Your task to perform on an android device: Open Maps and search for coffee Image 0: 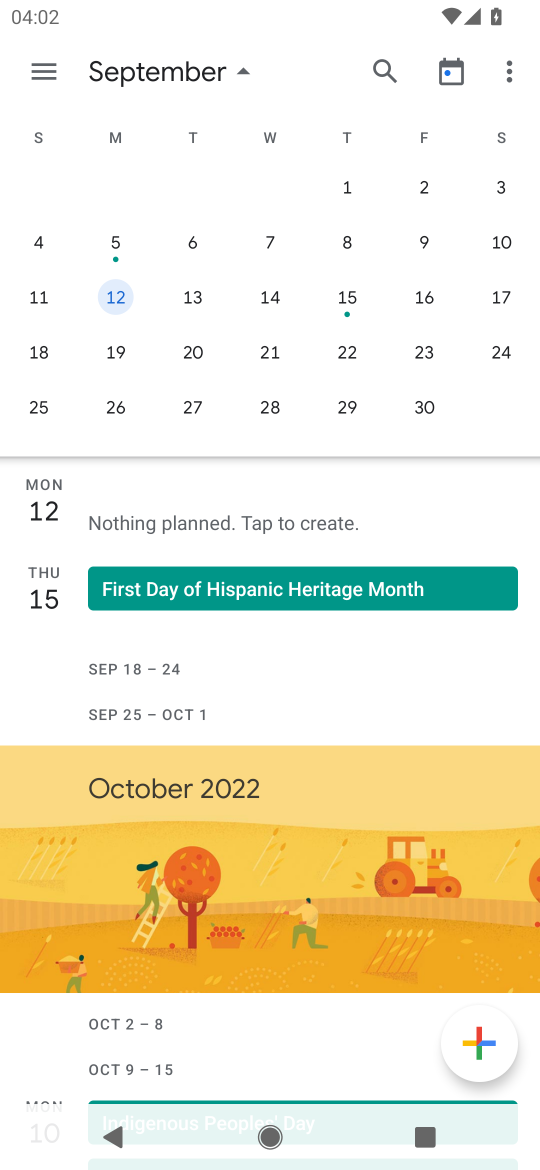
Step 0: press home button
Your task to perform on an android device: Open Maps and search for coffee Image 1: 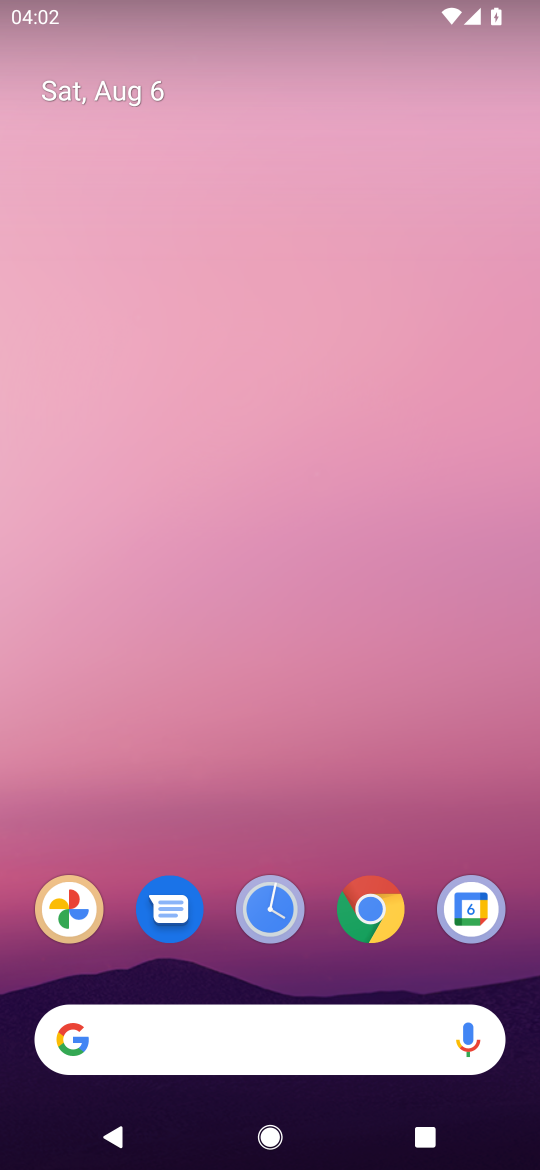
Step 1: drag from (262, 730) to (318, 62)
Your task to perform on an android device: Open Maps and search for coffee Image 2: 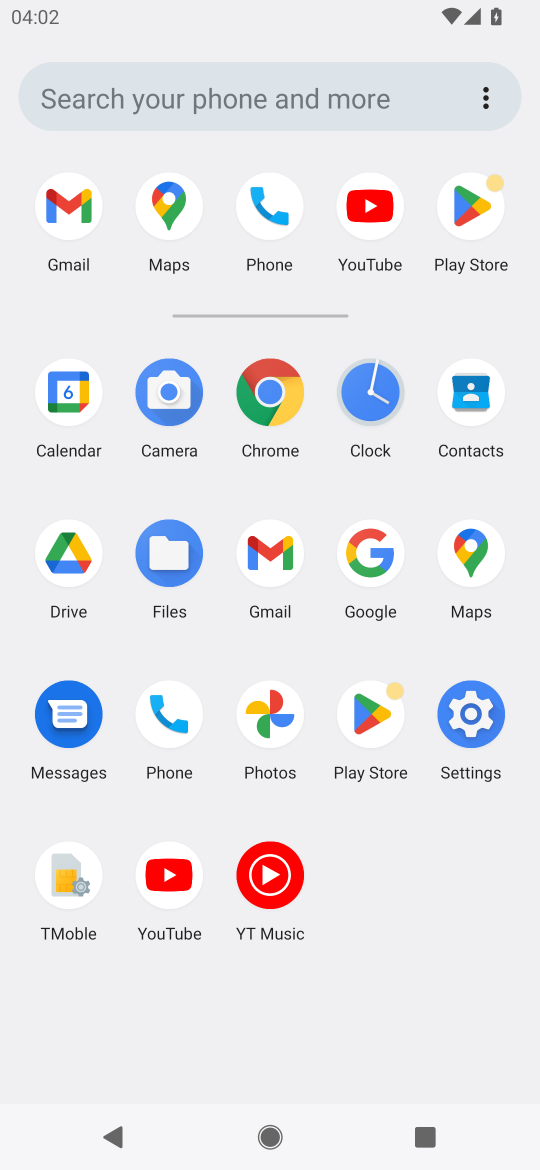
Step 2: click (472, 574)
Your task to perform on an android device: Open Maps and search for coffee Image 3: 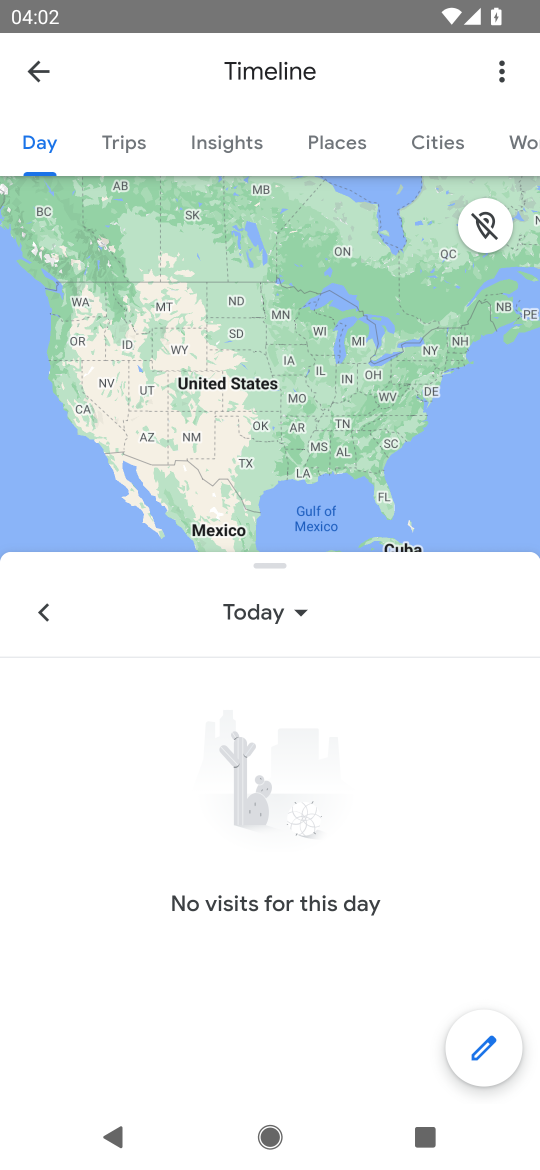
Step 3: click (35, 45)
Your task to perform on an android device: Open Maps and search for coffee Image 4: 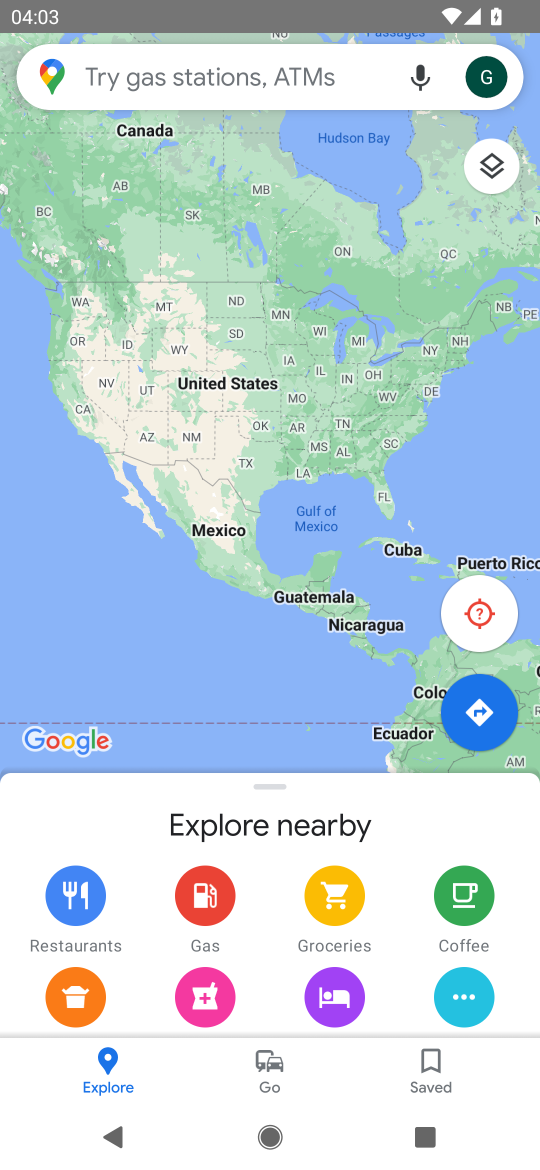
Step 4: click (225, 75)
Your task to perform on an android device: Open Maps and search for coffee Image 5: 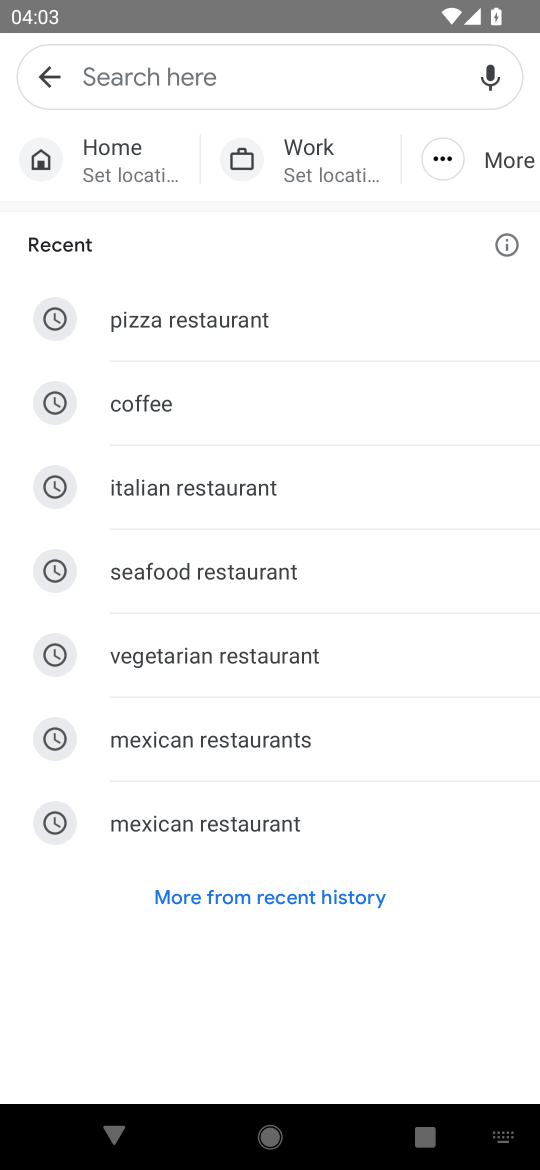
Step 5: type "coffee "
Your task to perform on an android device: Open Maps and search for coffee Image 6: 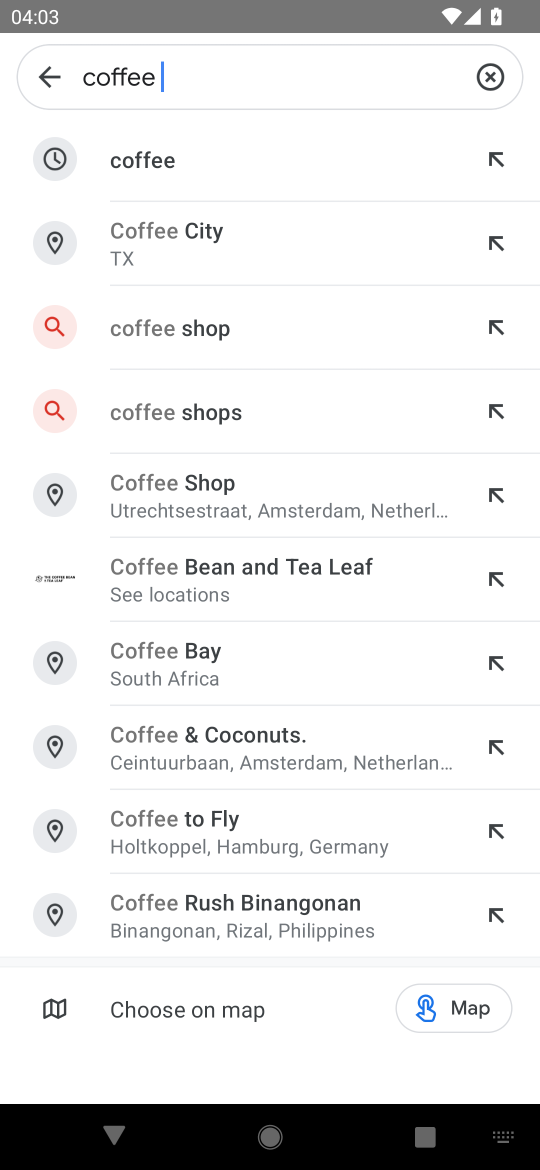
Step 6: click (119, 155)
Your task to perform on an android device: Open Maps and search for coffee Image 7: 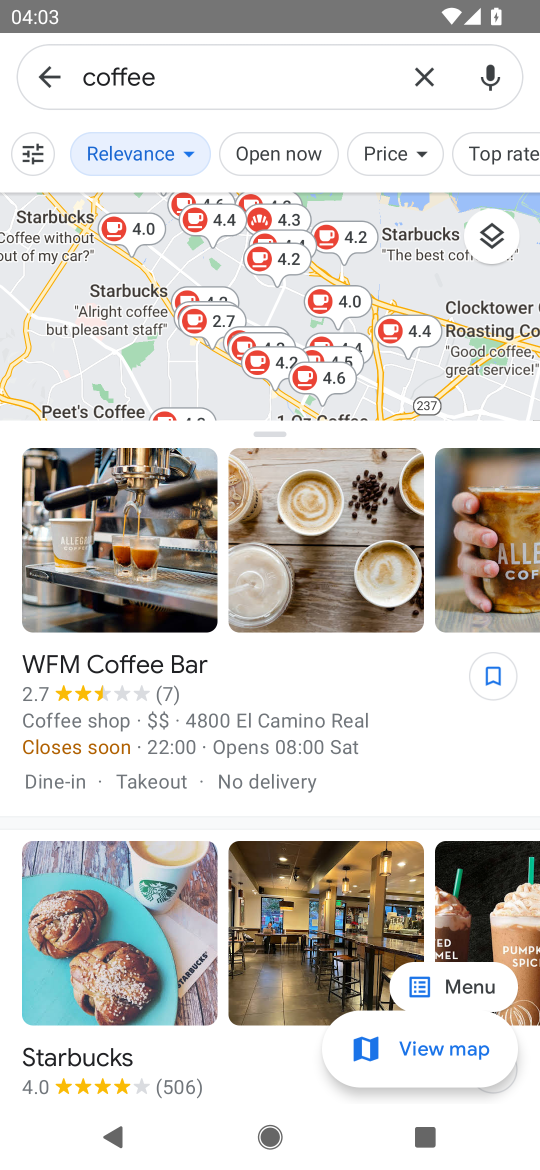
Step 7: task complete